Your task to perform on an android device: check google app version Image 0: 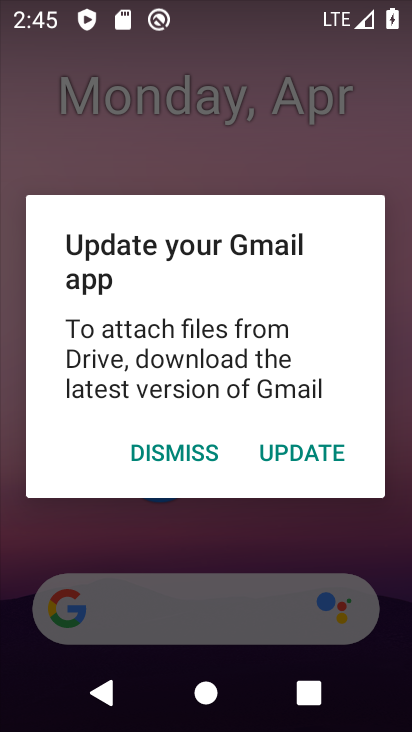
Step 0: press home button
Your task to perform on an android device: check google app version Image 1: 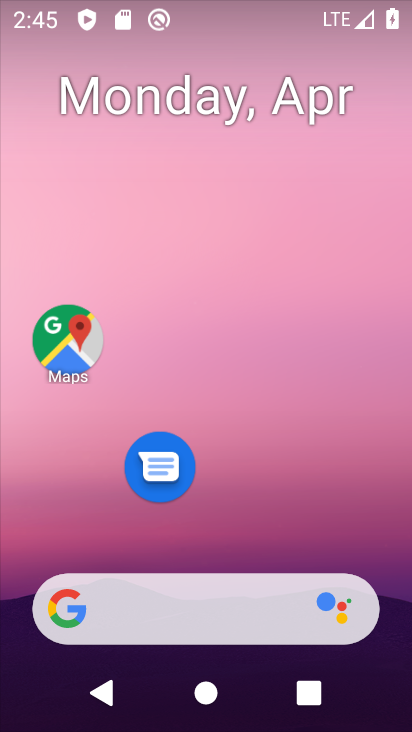
Step 1: drag from (281, 528) to (307, 156)
Your task to perform on an android device: check google app version Image 2: 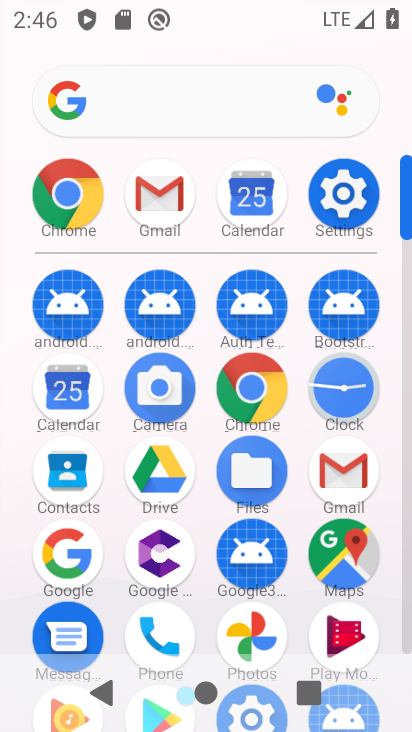
Step 2: click (80, 541)
Your task to perform on an android device: check google app version Image 3: 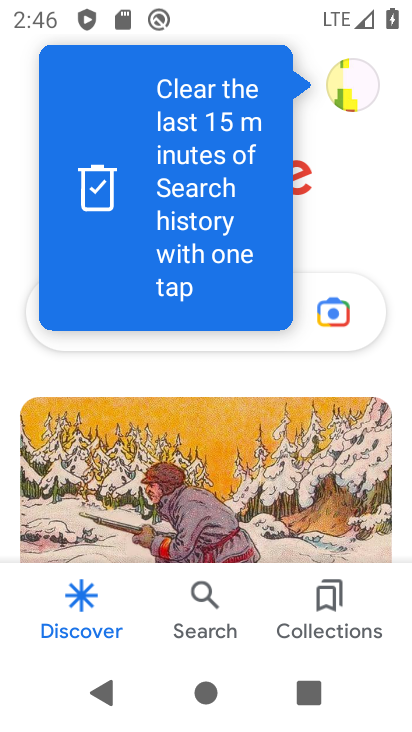
Step 3: click (340, 100)
Your task to perform on an android device: check google app version Image 4: 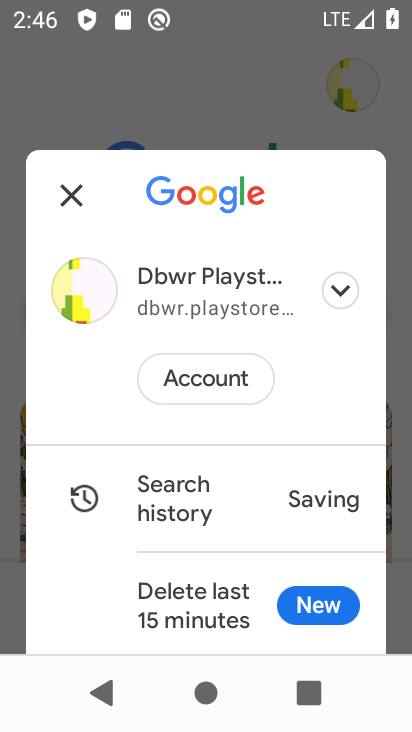
Step 4: drag from (221, 455) to (227, 149)
Your task to perform on an android device: check google app version Image 5: 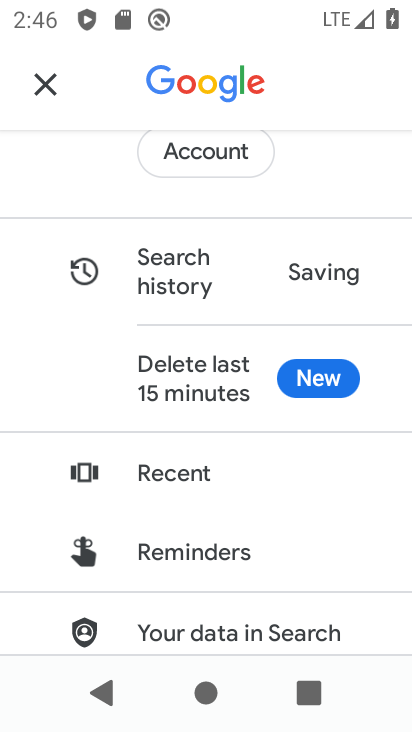
Step 5: drag from (238, 484) to (210, 232)
Your task to perform on an android device: check google app version Image 6: 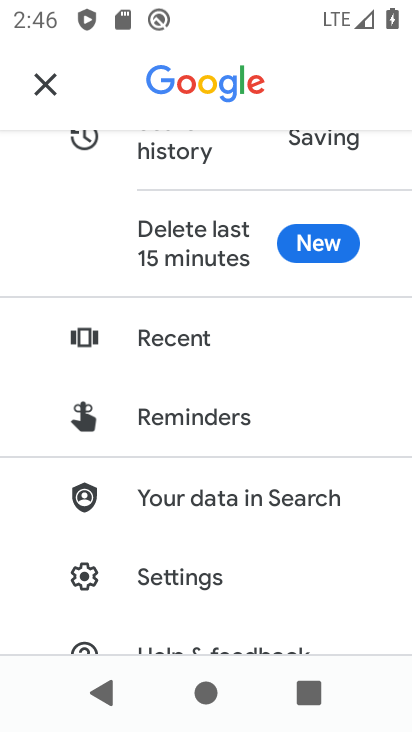
Step 6: click (246, 554)
Your task to perform on an android device: check google app version Image 7: 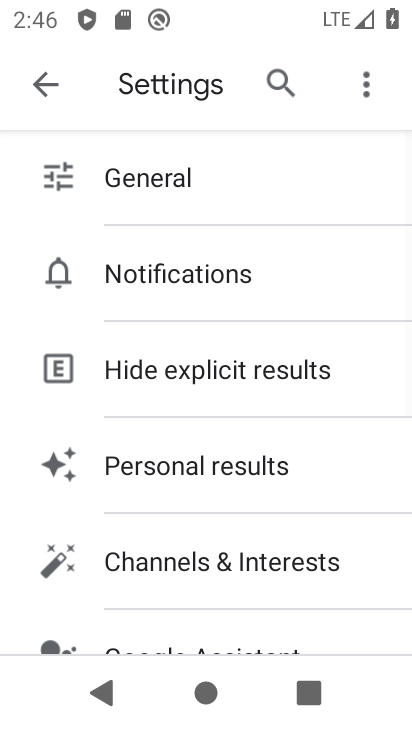
Step 7: drag from (260, 515) to (266, 174)
Your task to perform on an android device: check google app version Image 8: 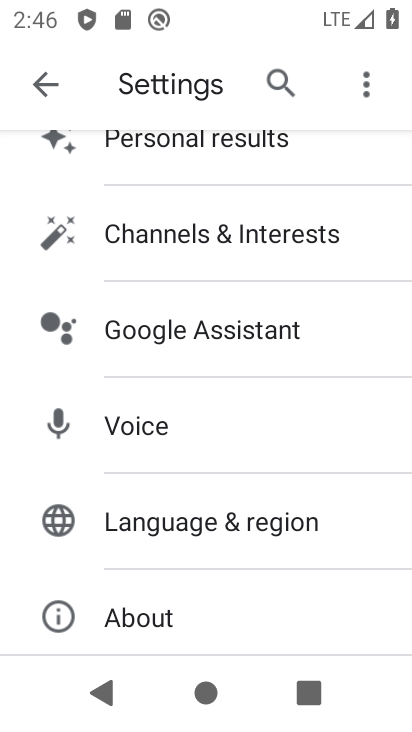
Step 8: click (246, 579)
Your task to perform on an android device: check google app version Image 9: 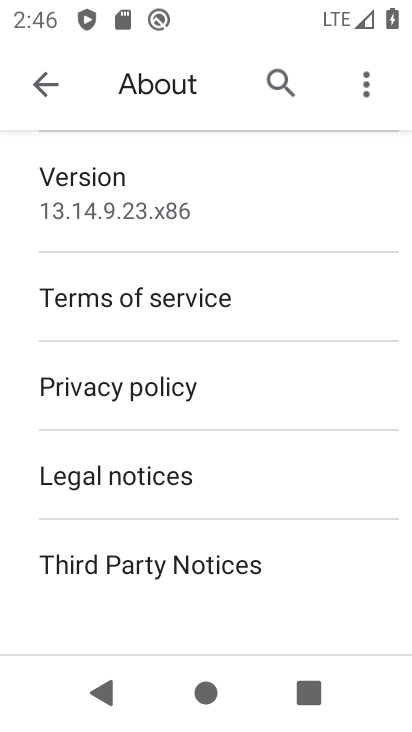
Step 9: click (163, 190)
Your task to perform on an android device: check google app version Image 10: 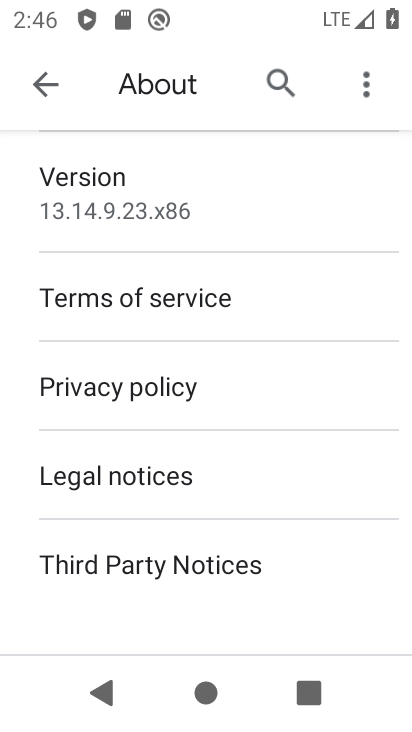
Step 10: task complete